Your task to perform on an android device: see creations saved in the google photos Image 0: 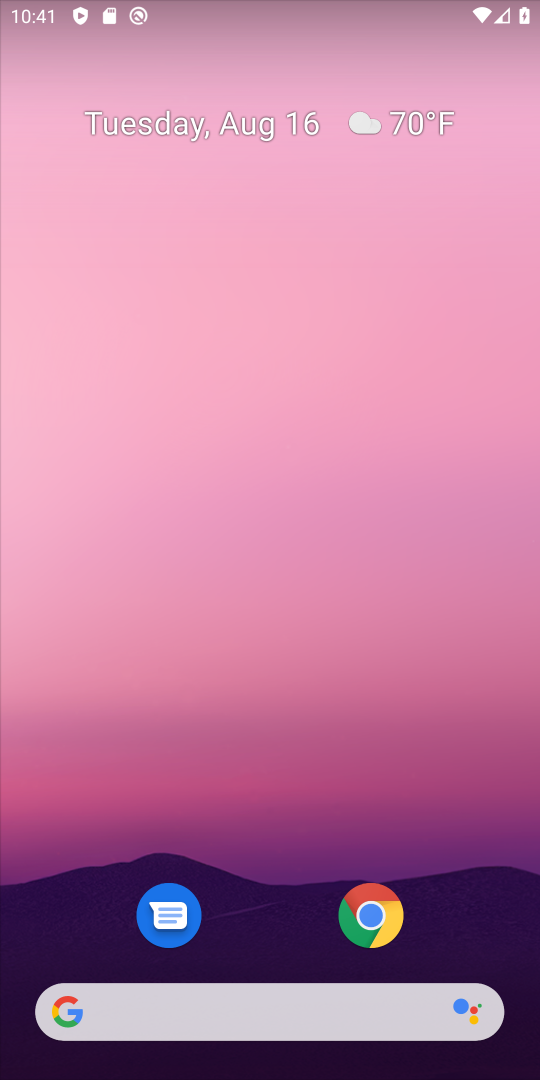
Step 0: click (536, 829)
Your task to perform on an android device: see creations saved in the google photos Image 1: 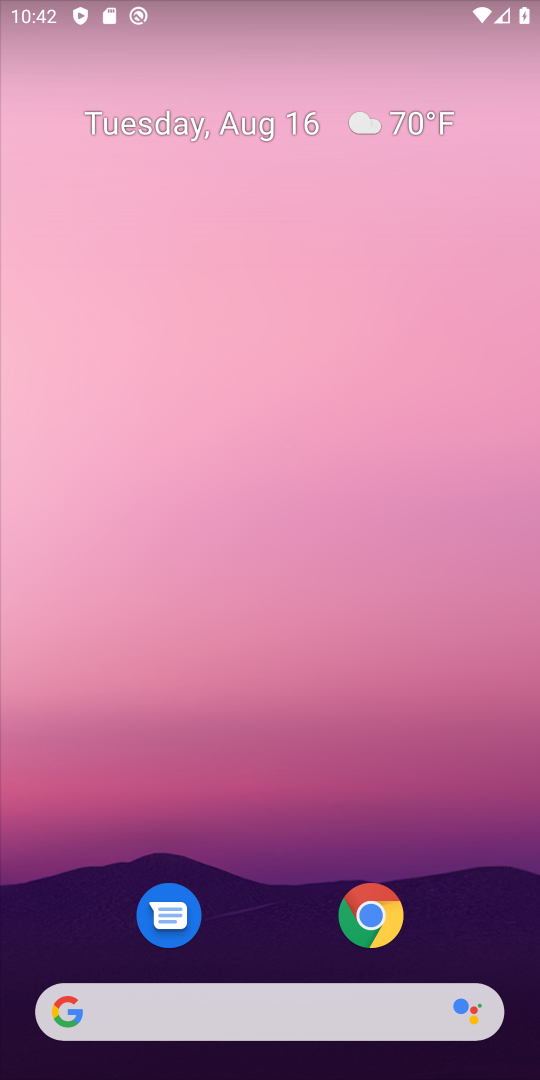
Step 1: drag from (277, 938) to (173, 148)
Your task to perform on an android device: see creations saved in the google photos Image 2: 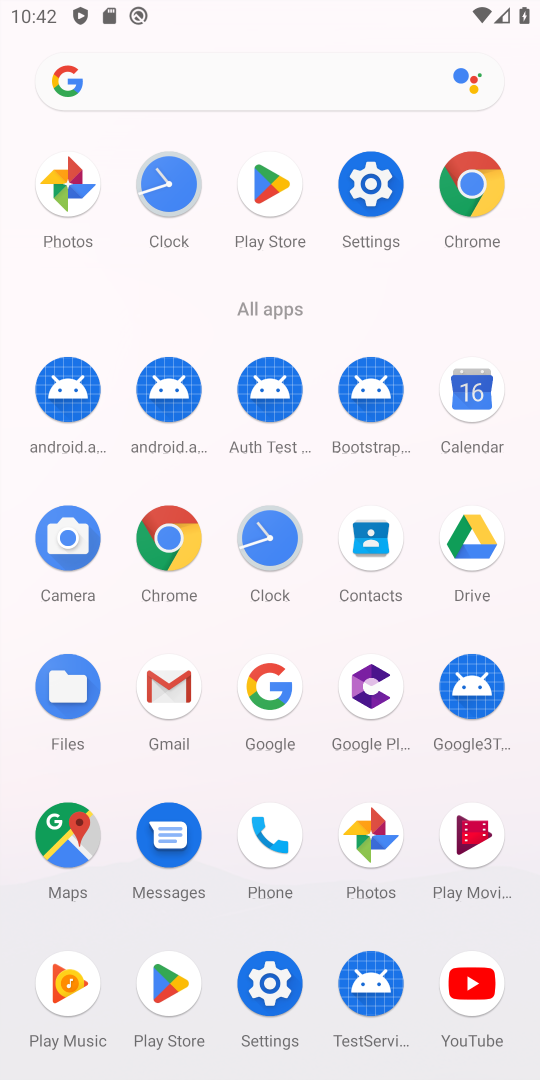
Step 2: click (373, 809)
Your task to perform on an android device: see creations saved in the google photos Image 3: 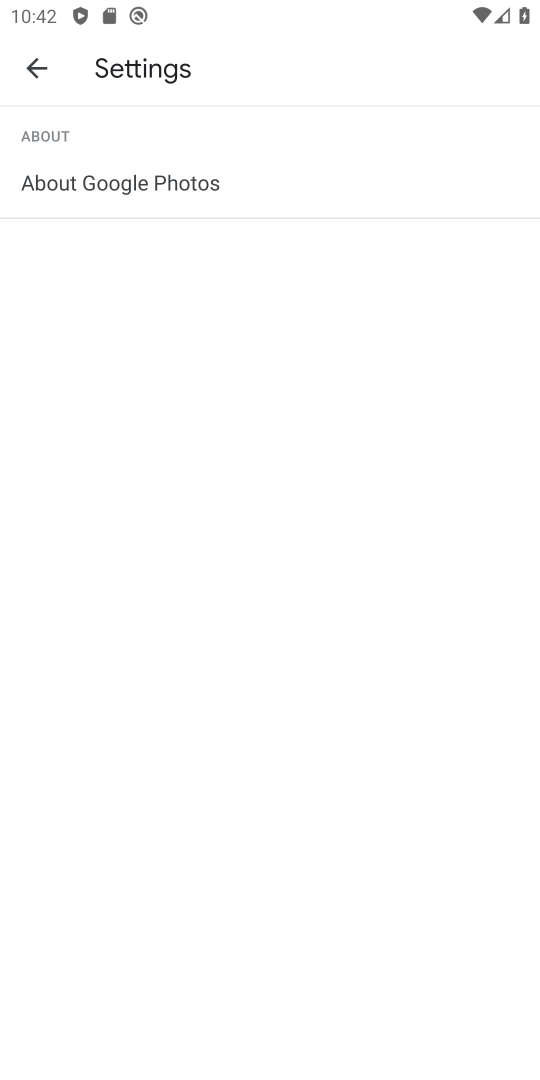
Step 3: click (38, 68)
Your task to perform on an android device: see creations saved in the google photos Image 4: 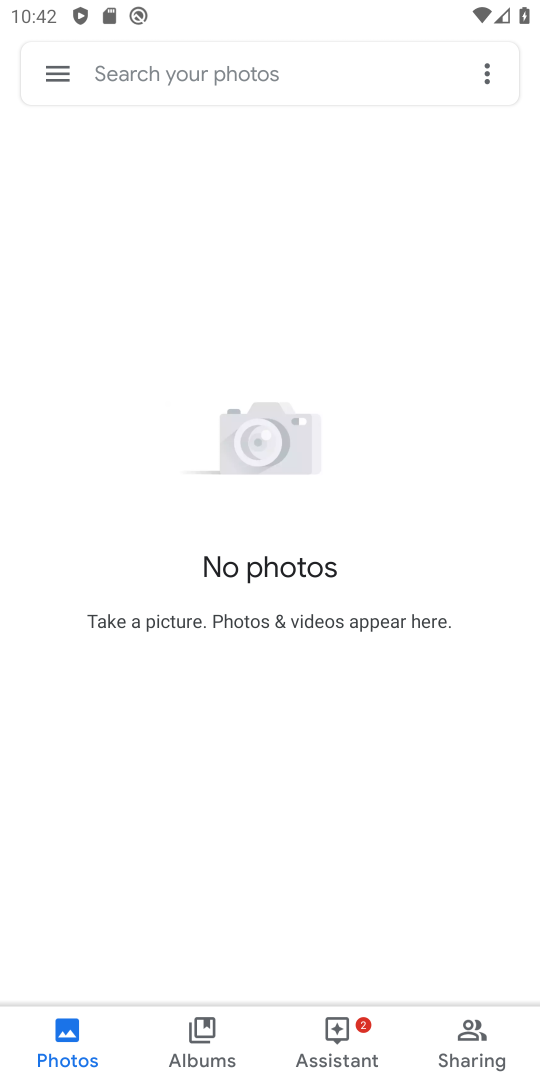
Step 4: click (246, 78)
Your task to perform on an android device: see creations saved in the google photos Image 5: 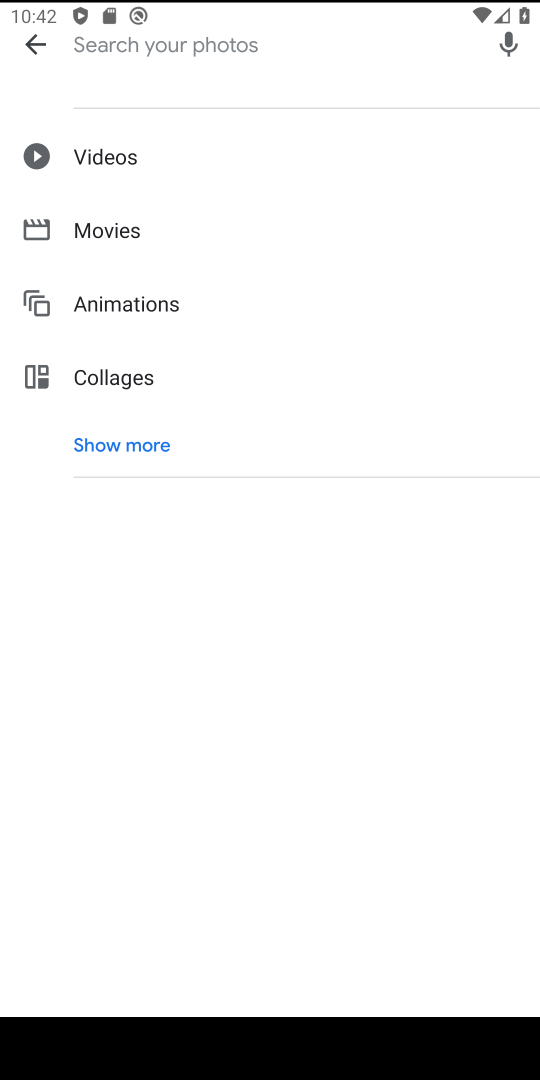
Step 5: click (101, 458)
Your task to perform on an android device: see creations saved in the google photos Image 6: 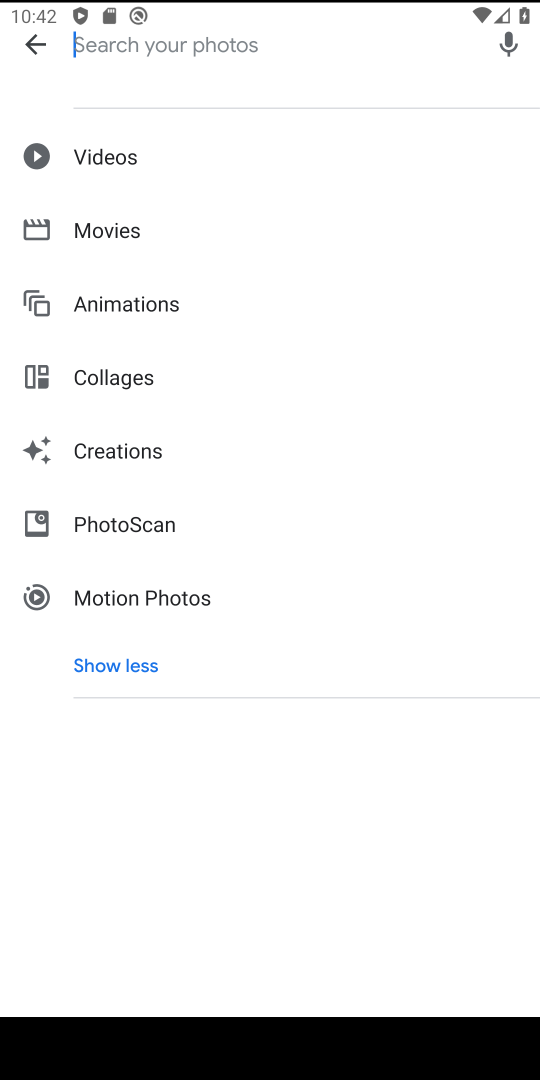
Step 6: click (101, 458)
Your task to perform on an android device: see creations saved in the google photos Image 7: 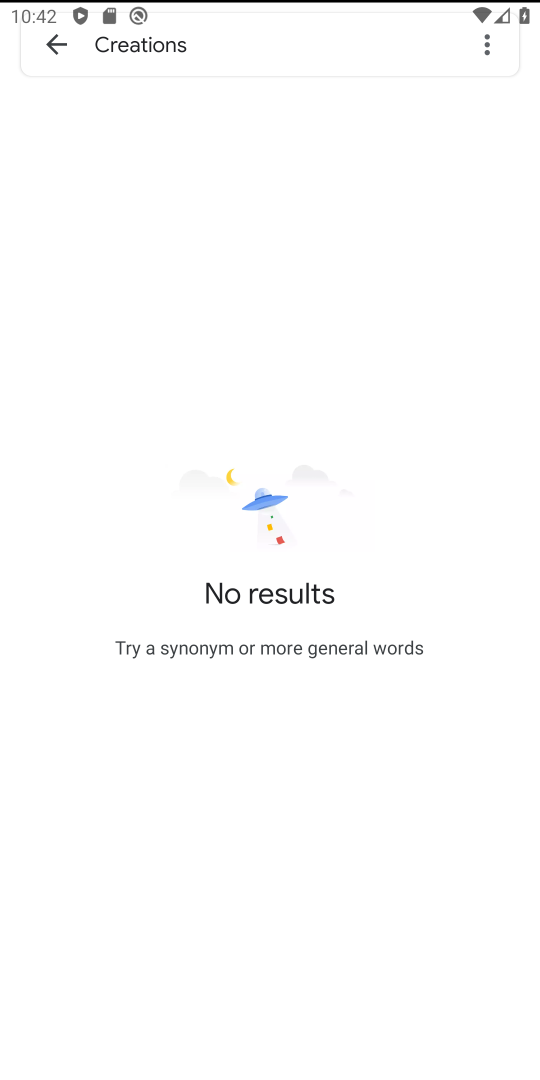
Step 7: task complete